Your task to perform on an android device: change the clock style Image 0: 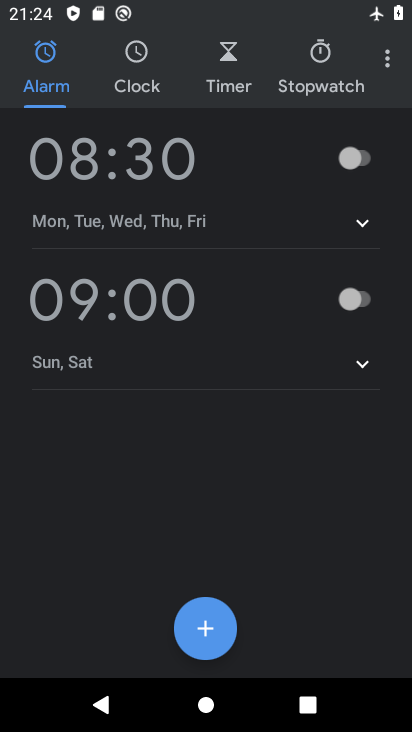
Step 0: click (381, 67)
Your task to perform on an android device: change the clock style Image 1: 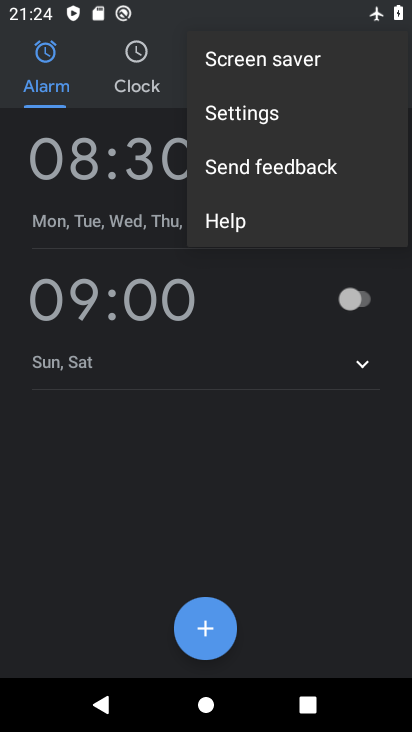
Step 1: click (318, 95)
Your task to perform on an android device: change the clock style Image 2: 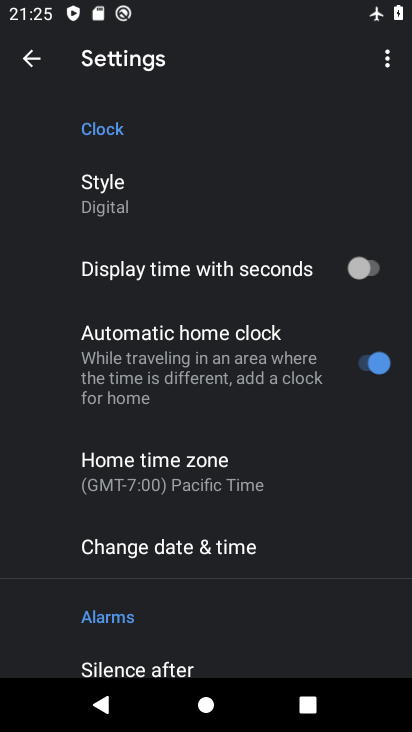
Step 2: click (172, 197)
Your task to perform on an android device: change the clock style Image 3: 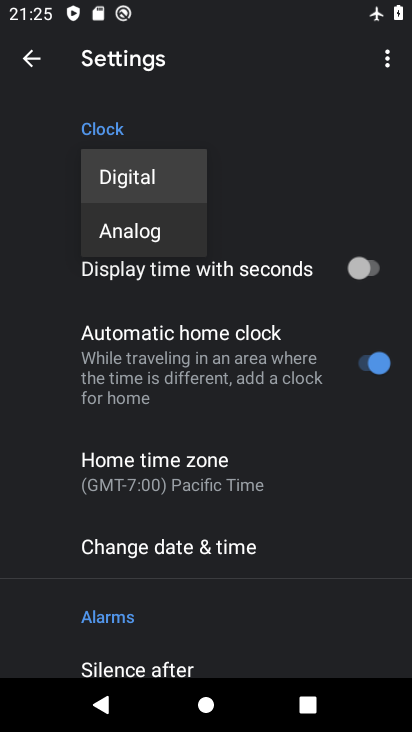
Step 3: click (151, 238)
Your task to perform on an android device: change the clock style Image 4: 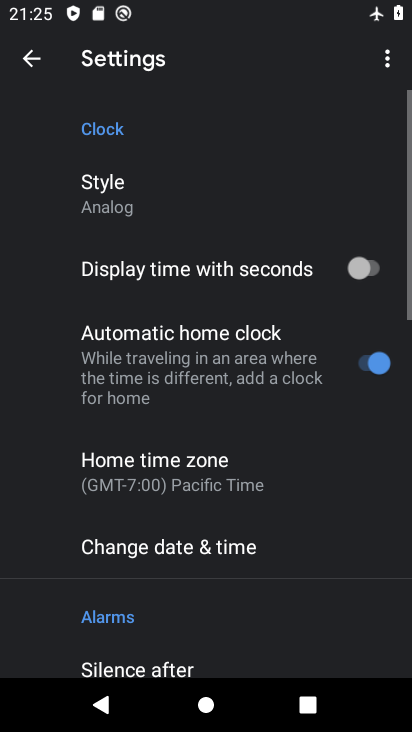
Step 4: task complete